Your task to perform on an android device: What's the weather today? Image 0: 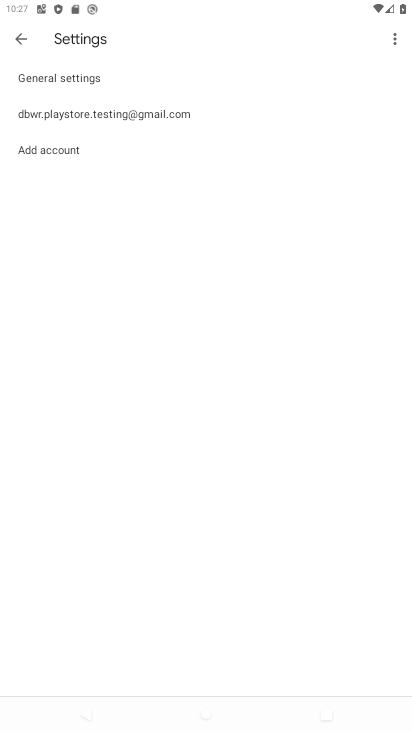
Step 0: drag from (238, 567) to (255, 133)
Your task to perform on an android device: What's the weather today? Image 1: 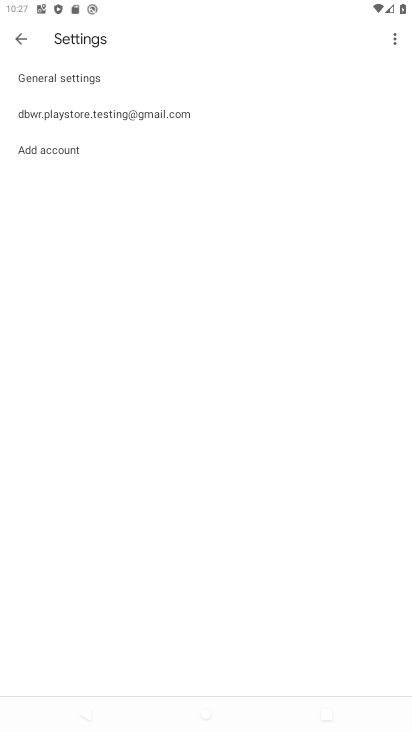
Step 1: press home button
Your task to perform on an android device: What's the weather today? Image 2: 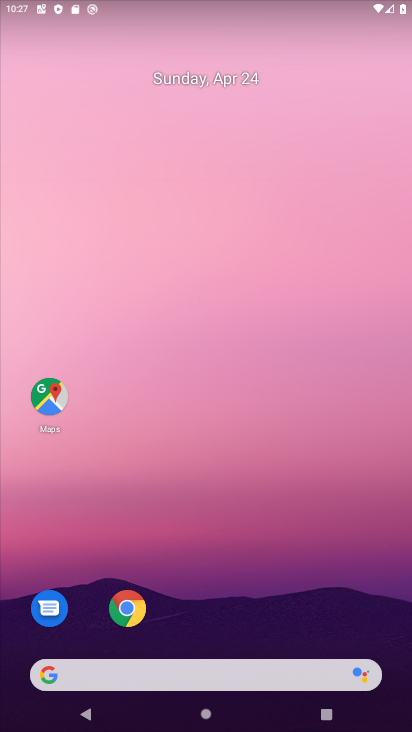
Step 2: drag from (241, 698) to (200, 39)
Your task to perform on an android device: What's the weather today? Image 3: 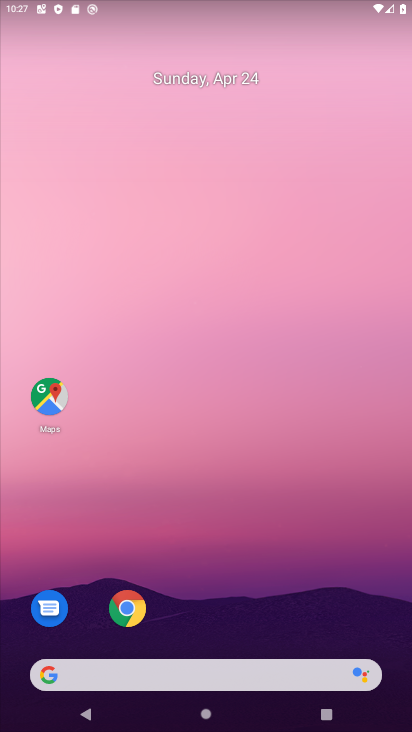
Step 3: drag from (300, 490) to (314, 129)
Your task to perform on an android device: What's the weather today? Image 4: 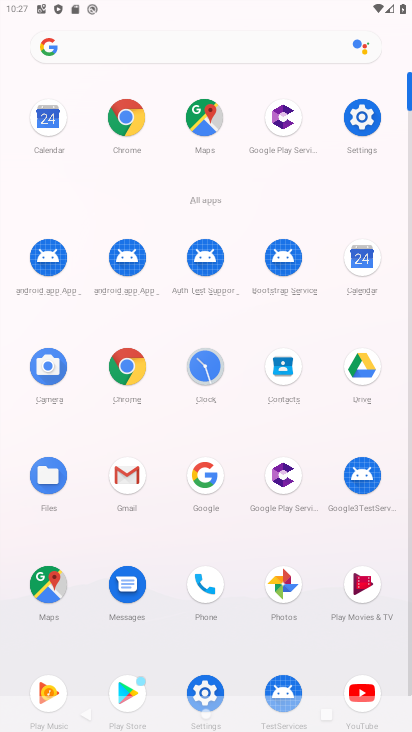
Step 4: click (174, 59)
Your task to perform on an android device: What's the weather today? Image 5: 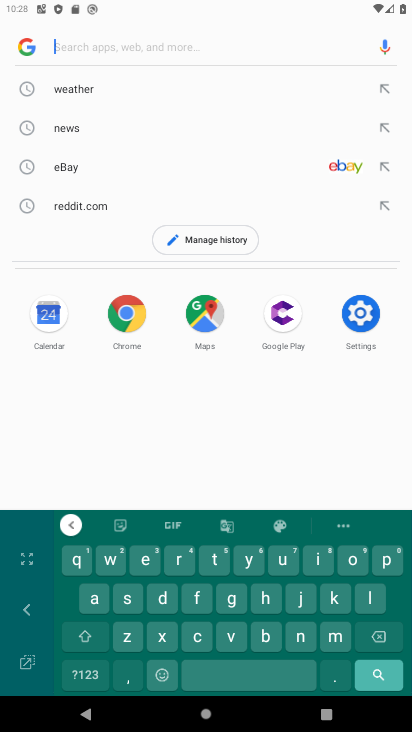
Step 5: click (93, 88)
Your task to perform on an android device: What's the weather today? Image 6: 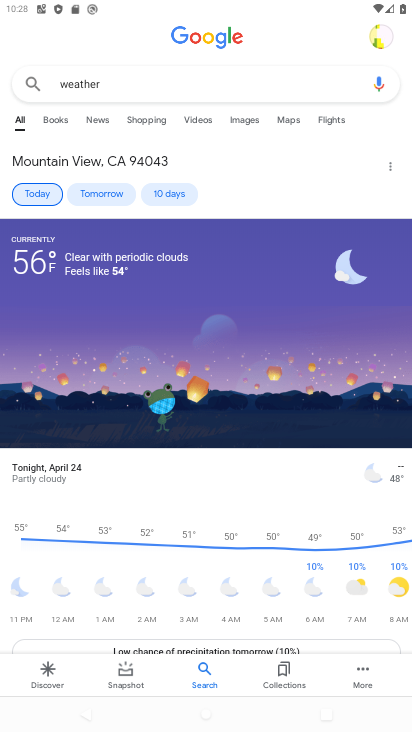
Step 6: task complete